Your task to perform on an android device: Open network settings Image 0: 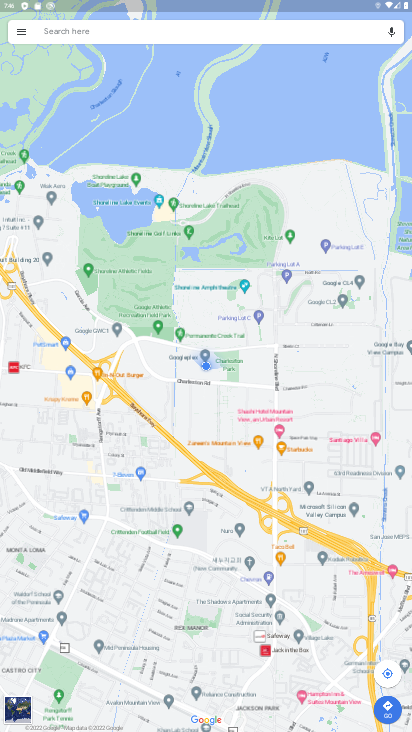
Step 0: press home button
Your task to perform on an android device: Open network settings Image 1: 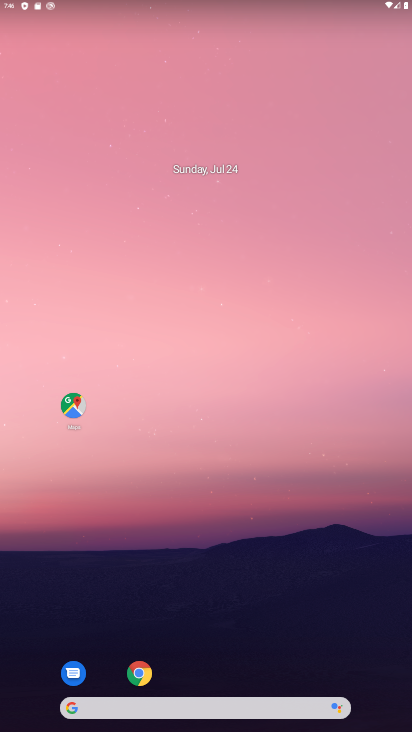
Step 1: drag from (156, 591) to (136, 4)
Your task to perform on an android device: Open network settings Image 2: 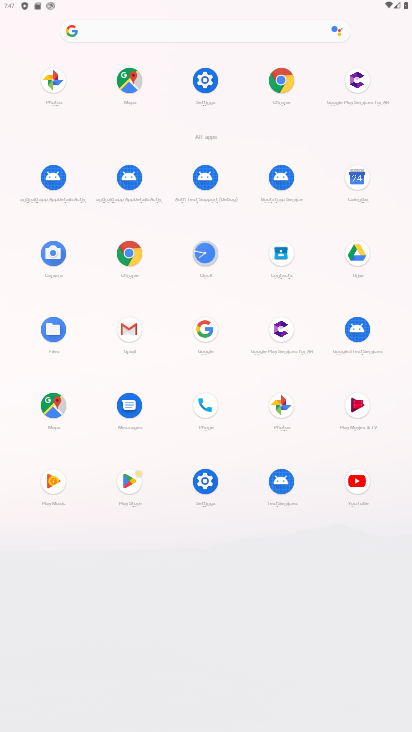
Step 2: click (203, 86)
Your task to perform on an android device: Open network settings Image 3: 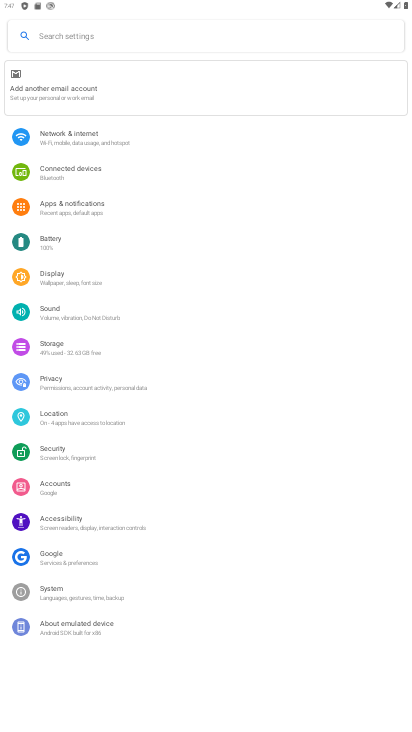
Step 3: click (74, 135)
Your task to perform on an android device: Open network settings Image 4: 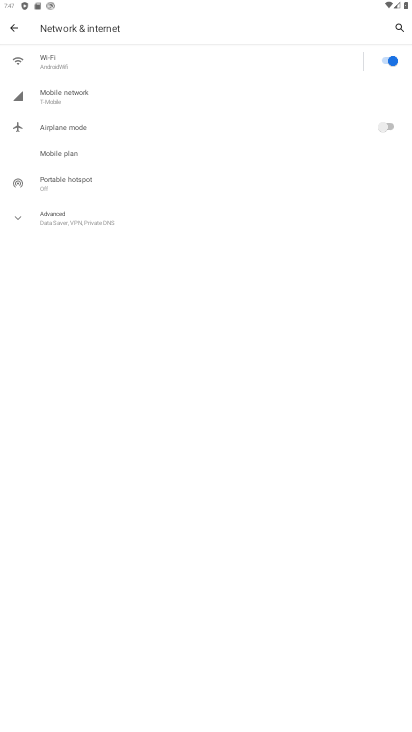
Step 4: task complete